Your task to perform on an android device: add a contact Image 0: 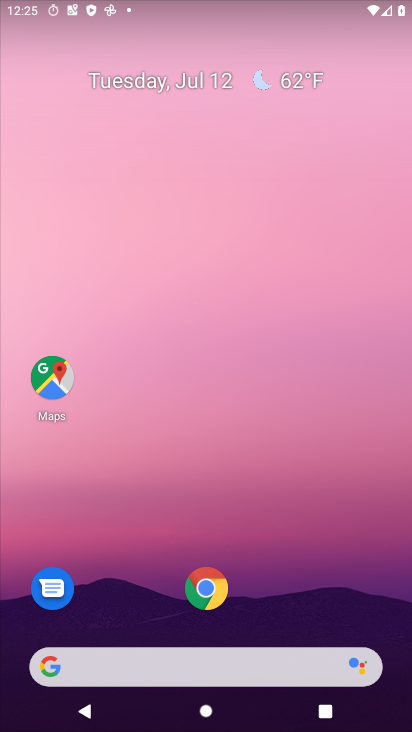
Step 0: drag from (146, 360) to (232, 15)
Your task to perform on an android device: add a contact Image 1: 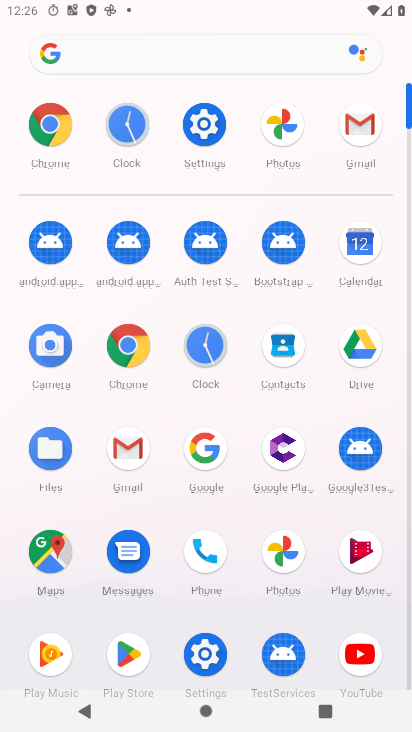
Step 1: click (291, 345)
Your task to perform on an android device: add a contact Image 2: 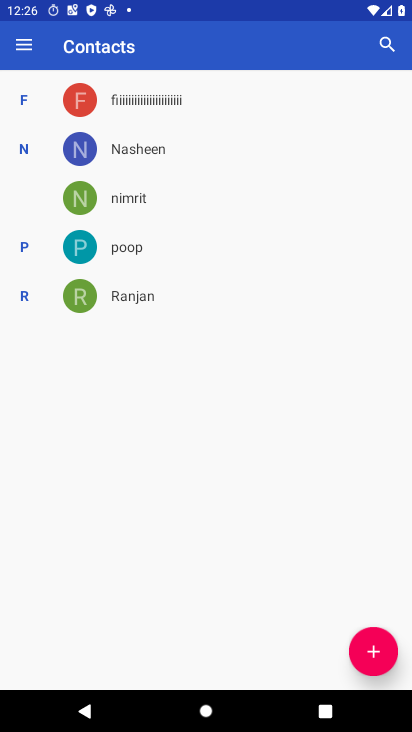
Step 2: click (360, 624)
Your task to perform on an android device: add a contact Image 3: 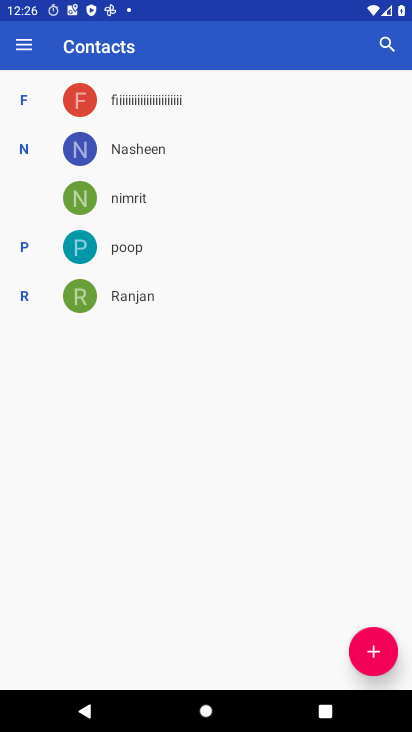
Step 3: click (370, 650)
Your task to perform on an android device: add a contact Image 4: 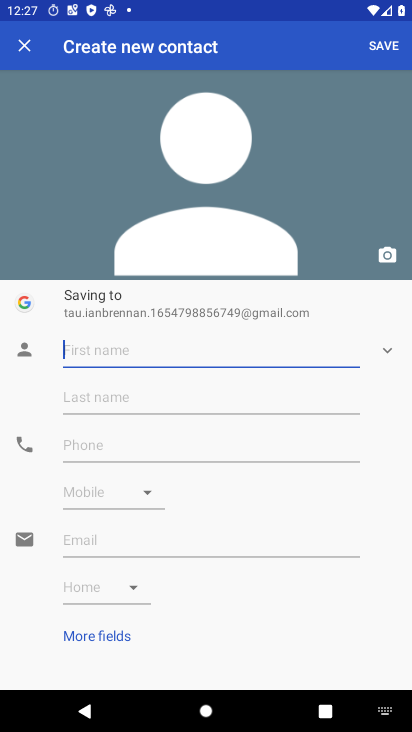
Step 4: type "veeru"
Your task to perform on an android device: add a contact Image 5: 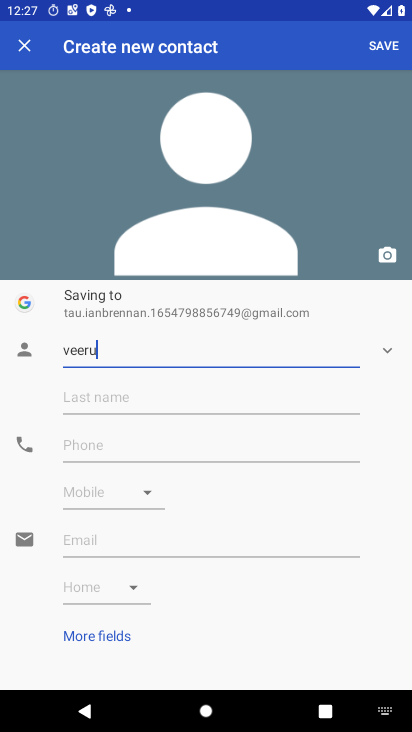
Step 5: click (193, 441)
Your task to perform on an android device: add a contact Image 6: 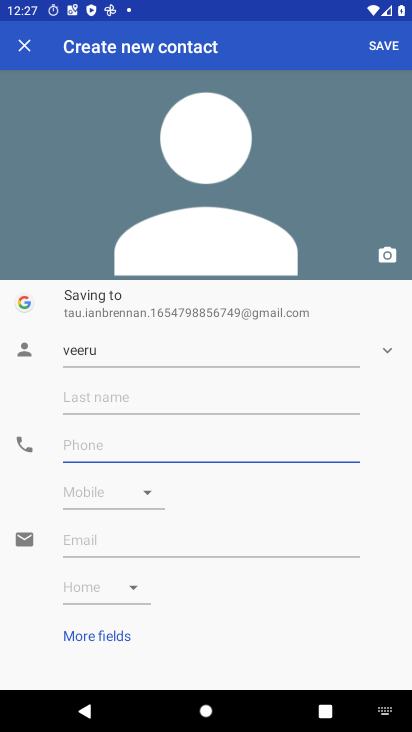
Step 6: type "9090090990"
Your task to perform on an android device: add a contact Image 7: 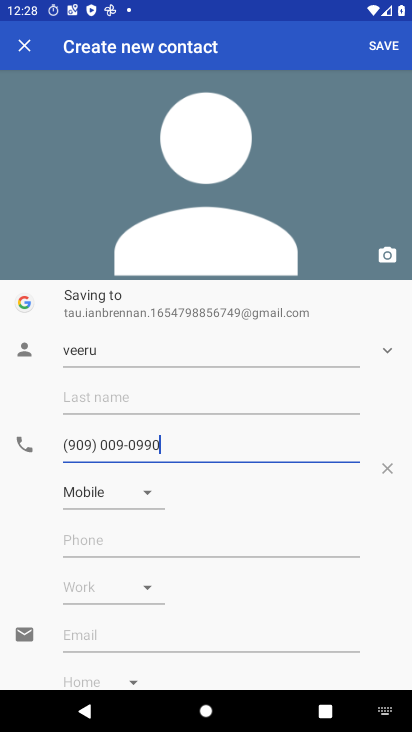
Step 7: click (369, 48)
Your task to perform on an android device: add a contact Image 8: 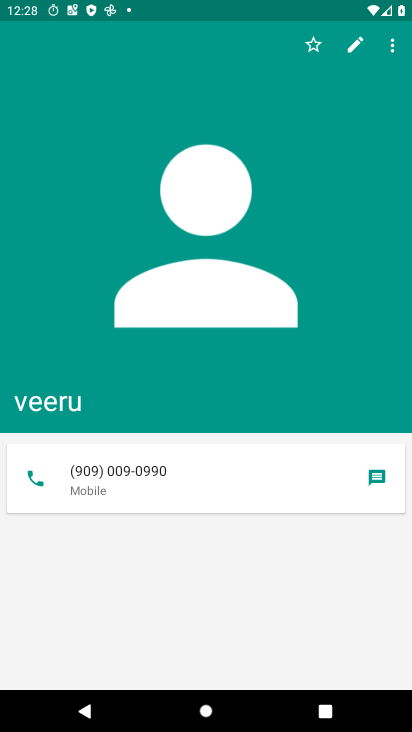
Step 8: task complete